Your task to perform on an android device: turn on location history Image 0: 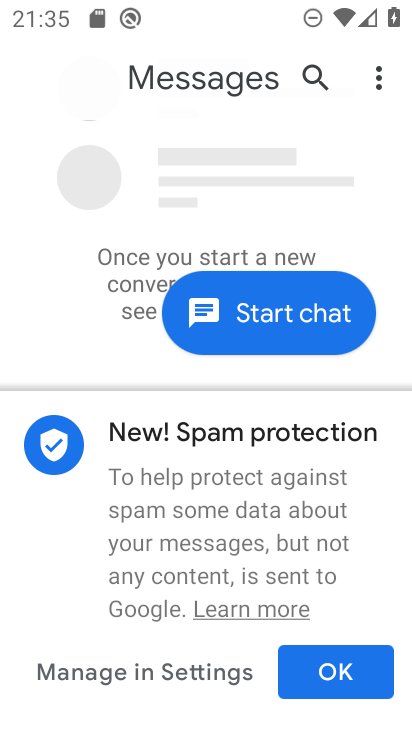
Step 0: press home button
Your task to perform on an android device: turn on location history Image 1: 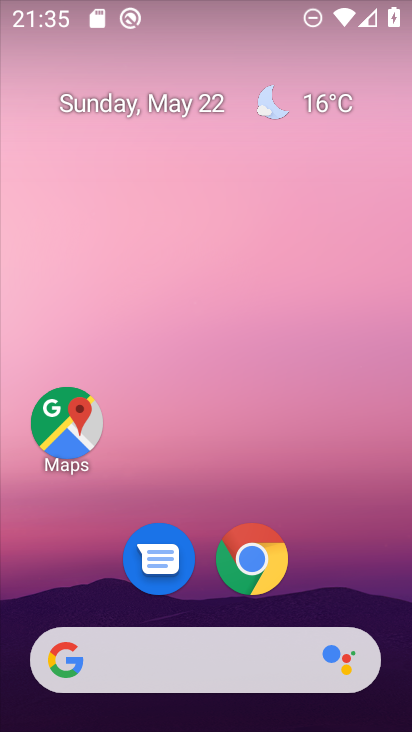
Step 1: drag from (238, 670) to (207, 206)
Your task to perform on an android device: turn on location history Image 2: 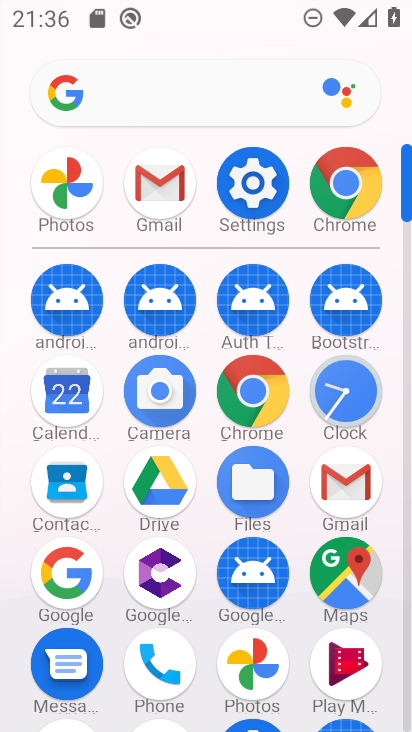
Step 2: click (251, 185)
Your task to perform on an android device: turn on location history Image 3: 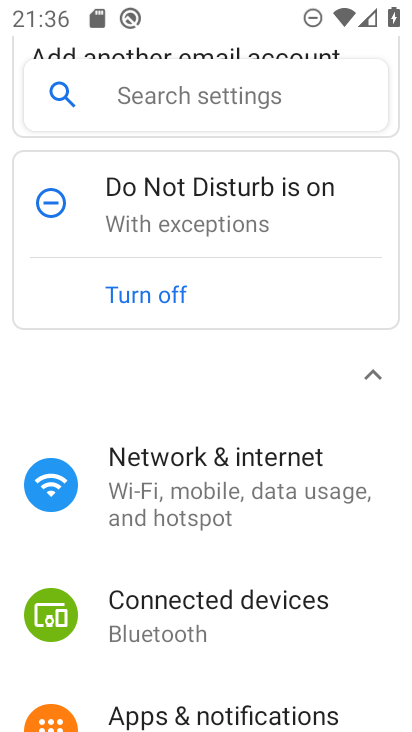
Step 3: click (149, 92)
Your task to perform on an android device: turn on location history Image 4: 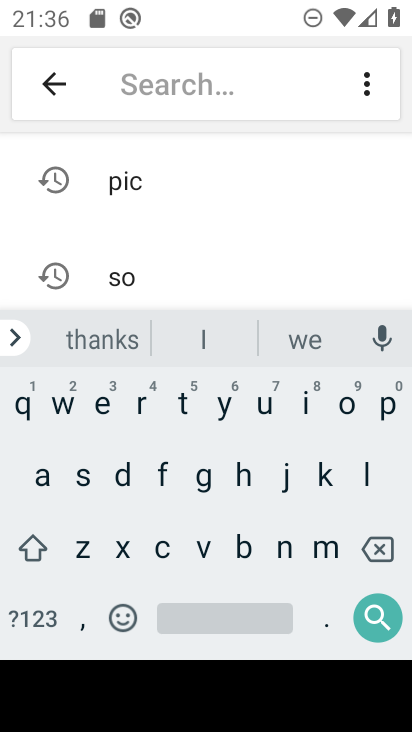
Step 4: click (361, 482)
Your task to perform on an android device: turn on location history Image 5: 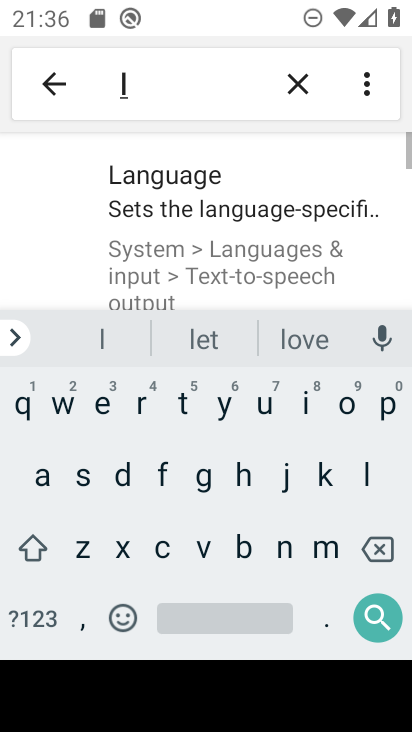
Step 5: click (347, 408)
Your task to perform on an android device: turn on location history Image 6: 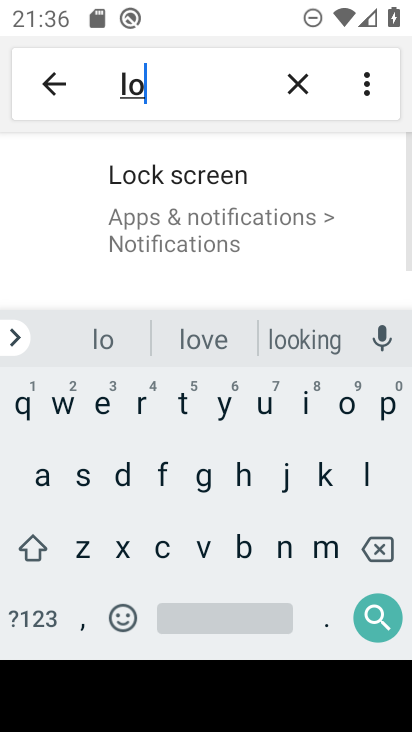
Step 6: drag from (214, 272) to (199, 174)
Your task to perform on an android device: turn on location history Image 7: 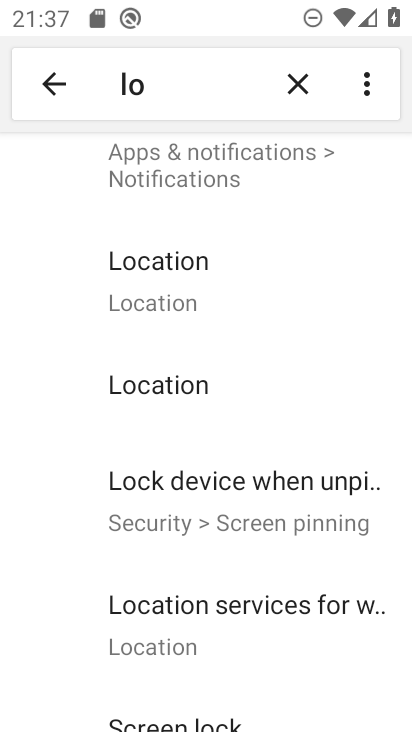
Step 7: click (181, 292)
Your task to perform on an android device: turn on location history Image 8: 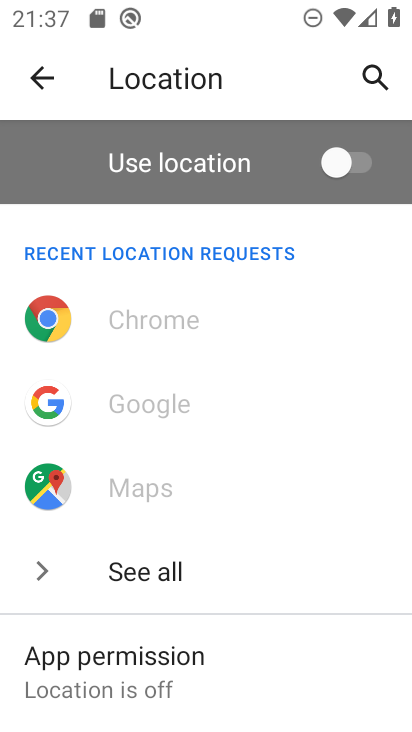
Step 8: drag from (256, 558) to (218, 211)
Your task to perform on an android device: turn on location history Image 9: 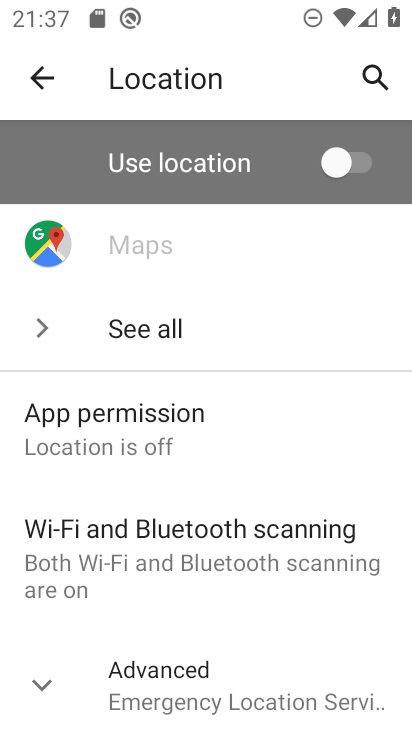
Step 9: click (91, 679)
Your task to perform on an android device: turn on location history Image 10: 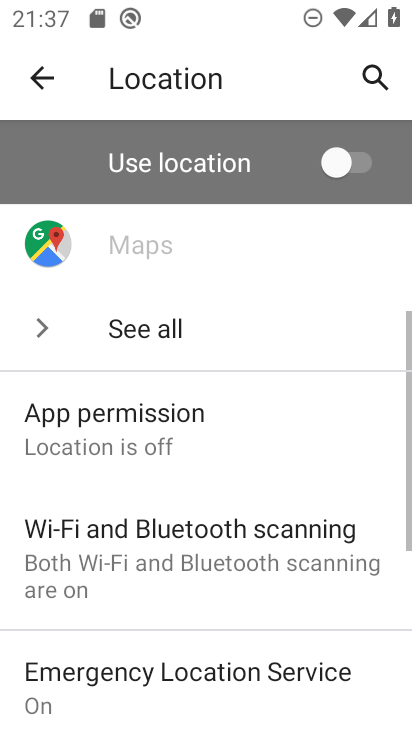
Step 10: drag from (207, 612) to (206, 288)
Your task to perform on an android device: turn on location history Image 11: 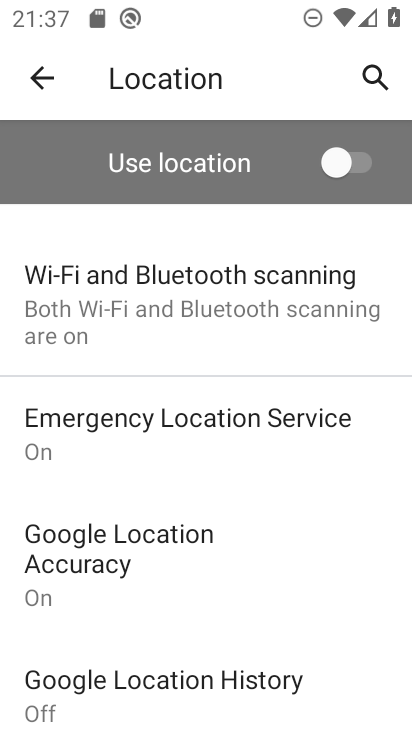
Step 11: click (192, 680)
Your task to perform on an android device: turn on location history Image 12: 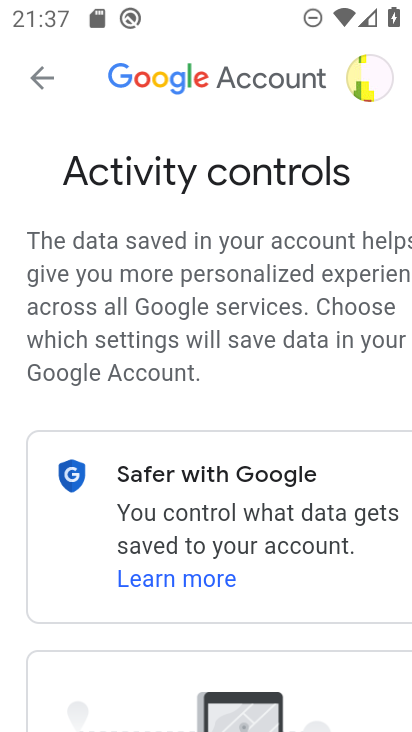
Step 12: task complete